Your task to perform on an android device: Open sound settings Image 0: 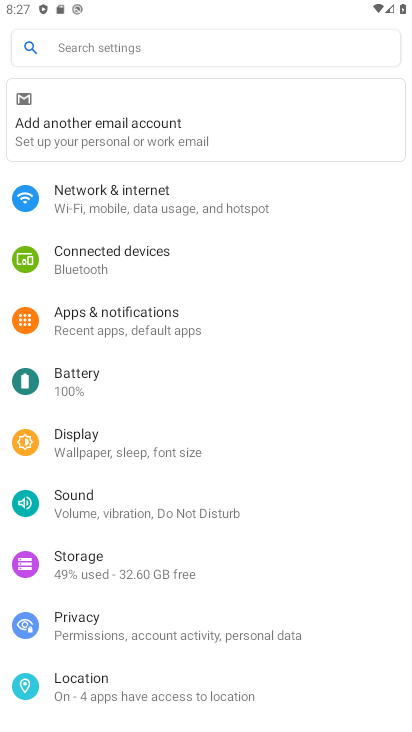
Step 0: click (98, 516)
Your task to perform on an android device: Open sound settings Image 1: 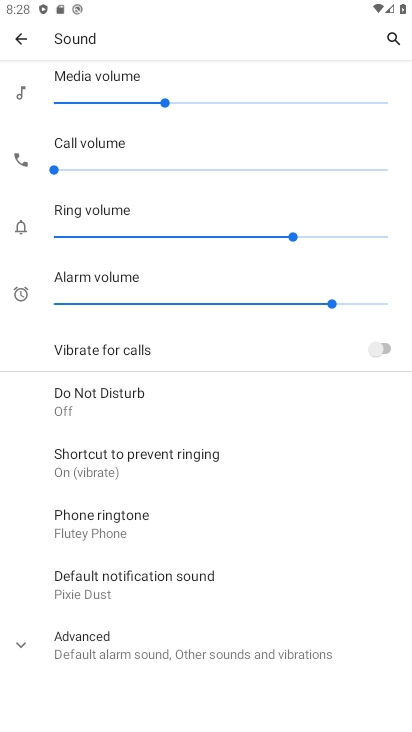
Step 1: task complete